Your task to perform on an android device: change the clock display to digital Image 0: 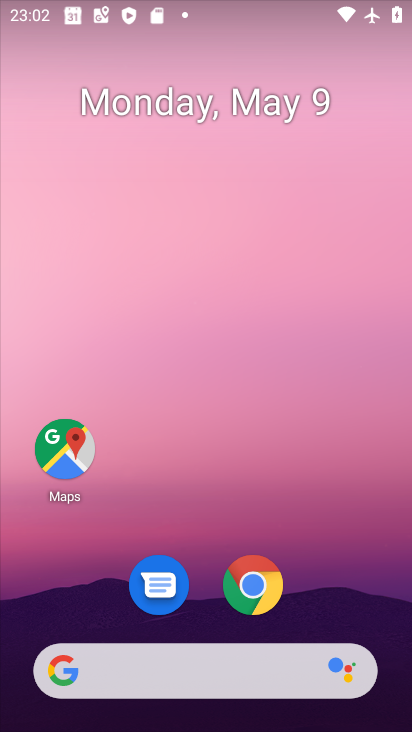
Step 0: drag from (318, 535) to (303, 12)
Your task to perform on an android device: change the clock display to digital Image 1: 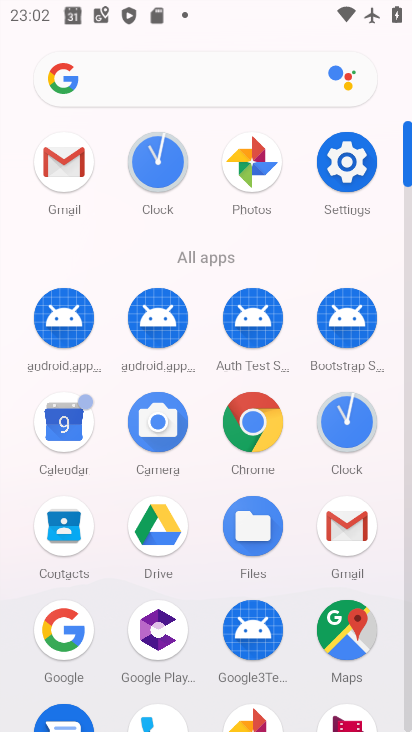
Step 1: click (171, 158)
Your task to perform on an android device: change the clock display to digital Image 2: 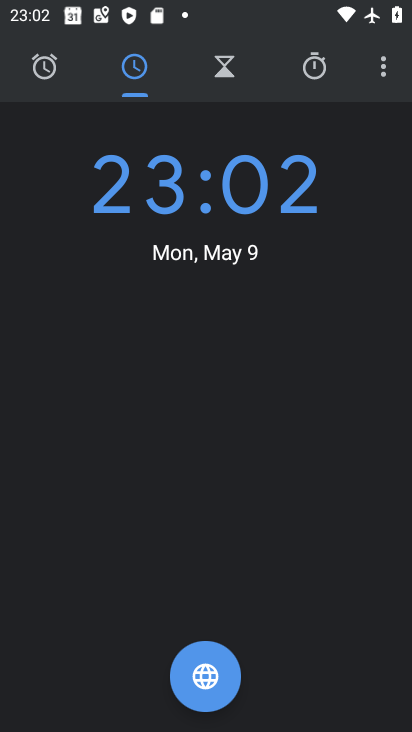
Step 2: task complete